Your task to perform on an android device: Open Yahoo.com Image 0: 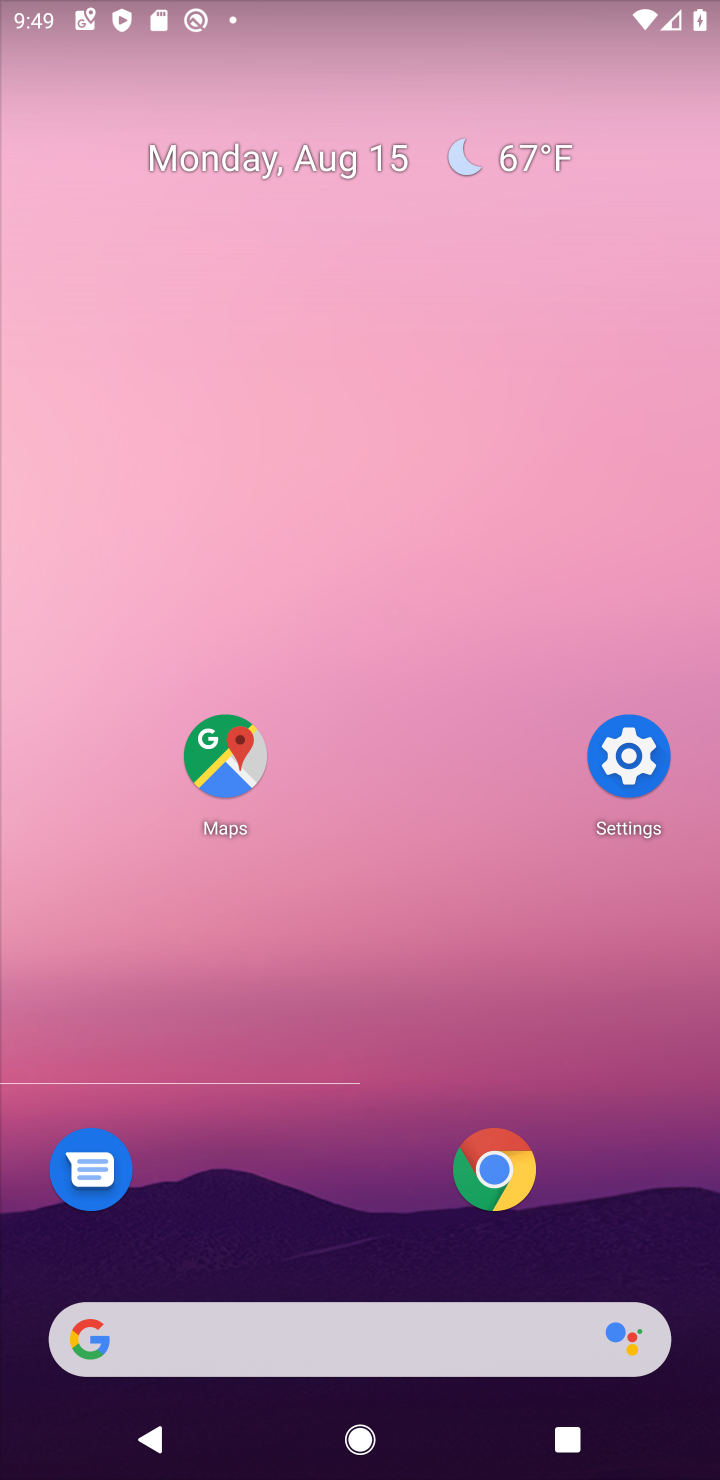
Step 0: click (484, 1173)
Your task to perform on an android device: Open Yahoo.com Image 1: 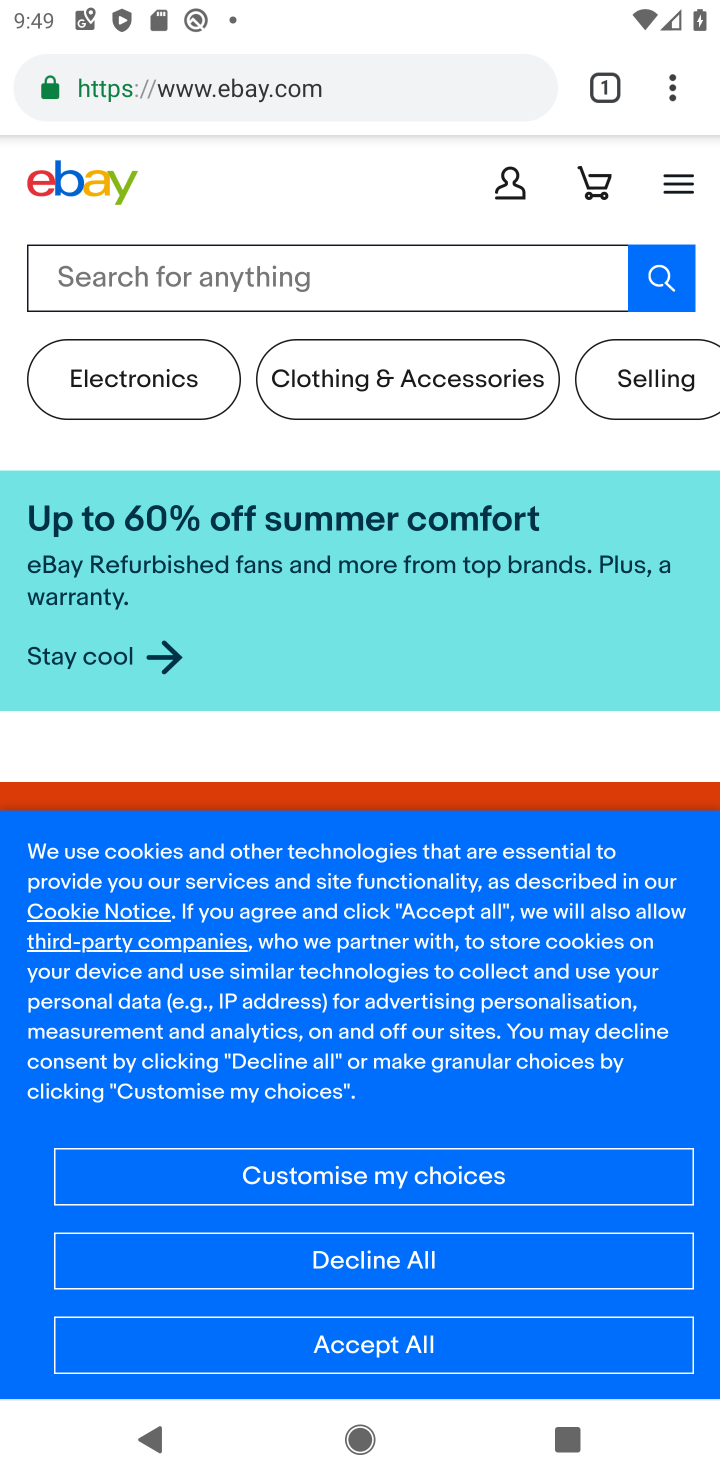
Step 1: drag from (675, 96) to (536, 177)
Your task to perform on an android device: Open Yahoo.com Image 2: 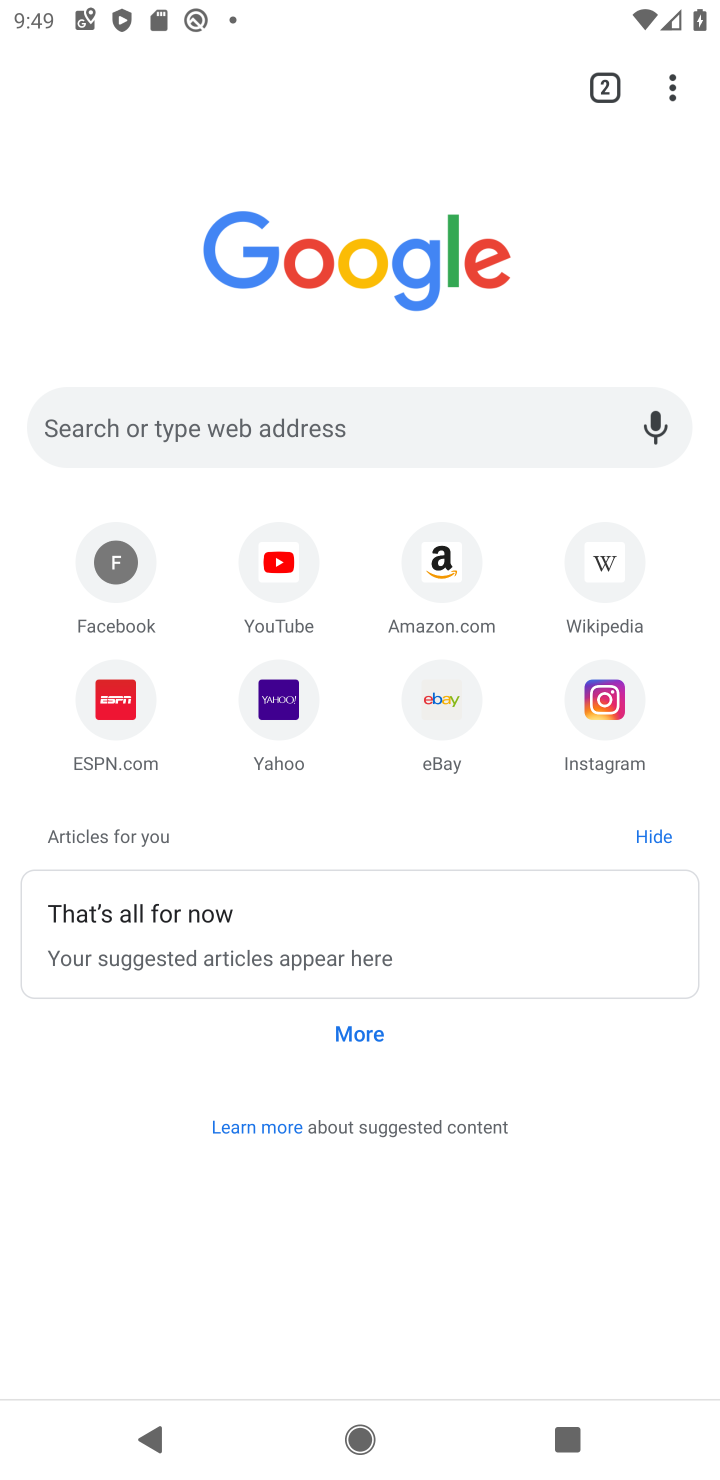
Step 2: click (274, 697)
Your task to perform on an android device: Open Yahoo.com Image 3: 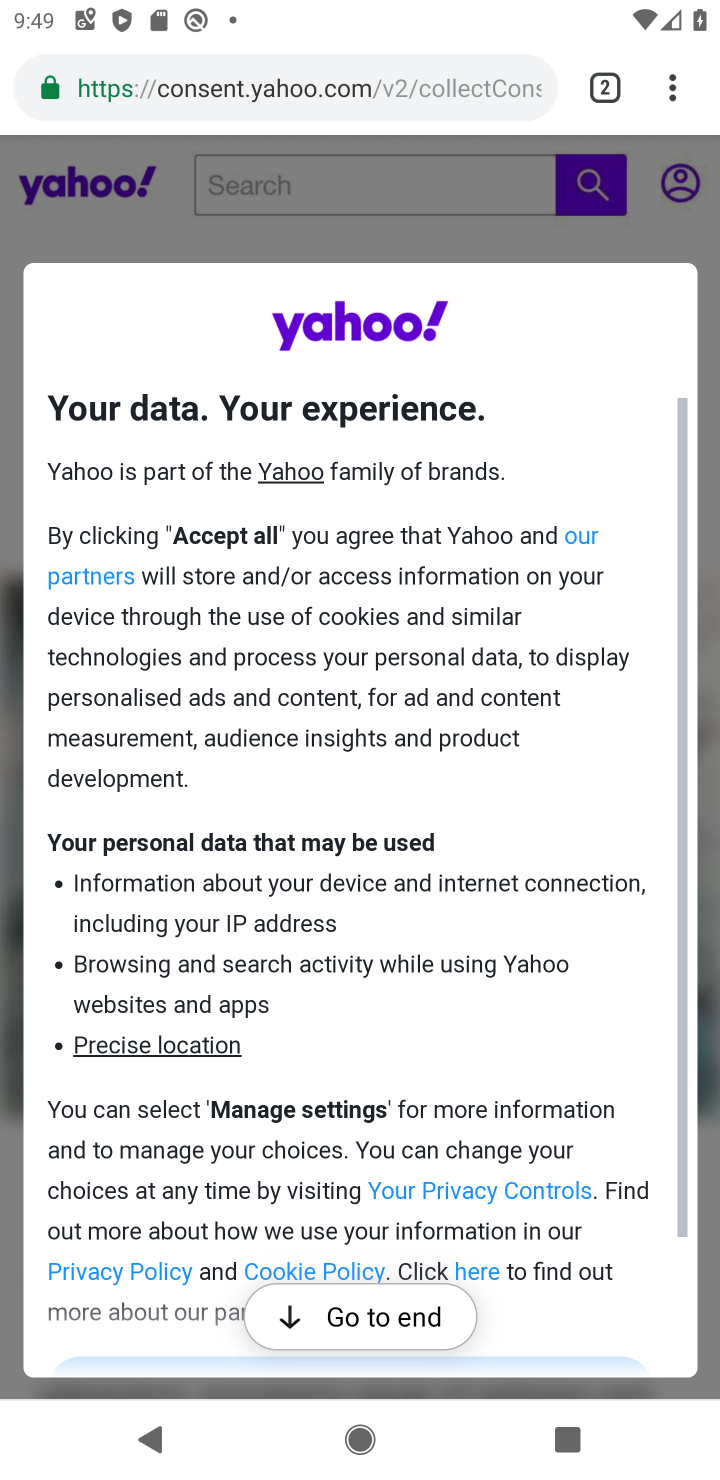
Step 3: click (367, 1313)
Your task to perform on an android device: Open Yahoo.com Image 4: 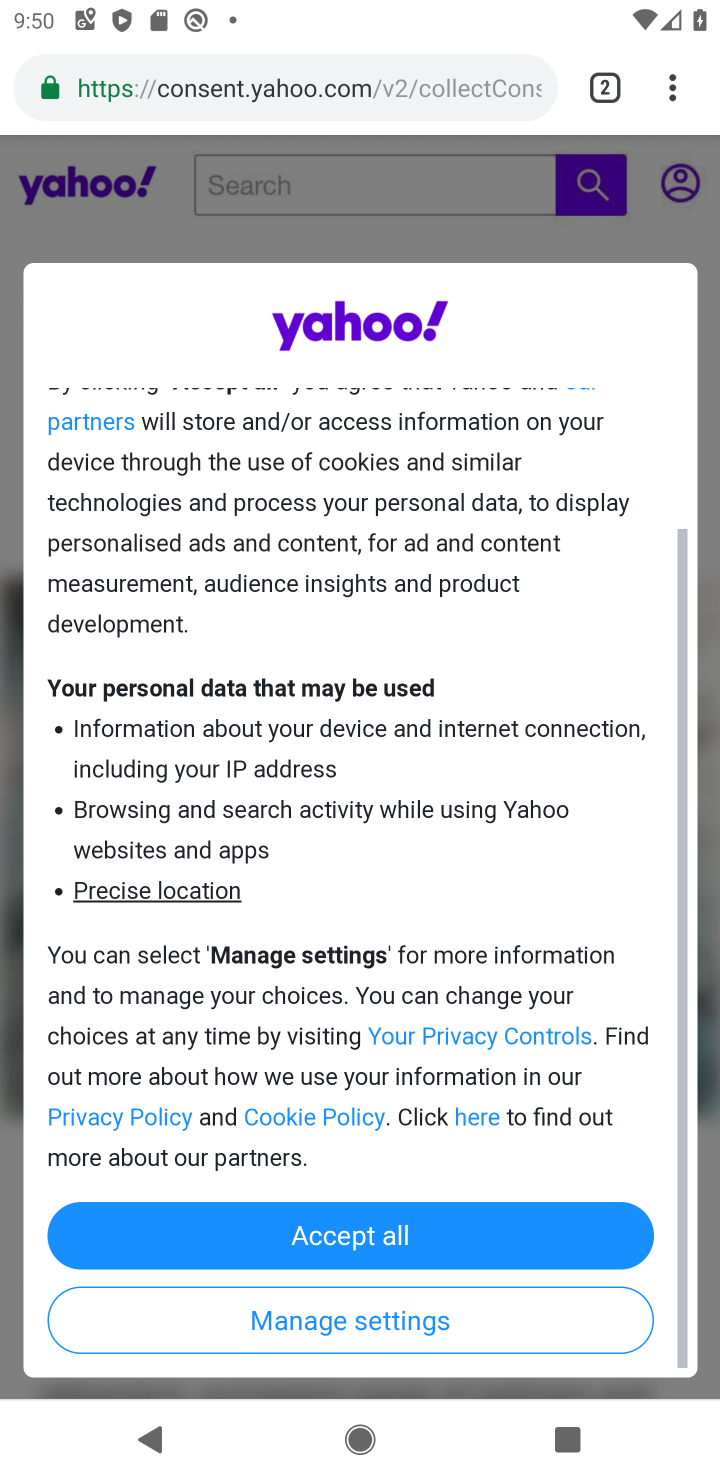
Step 4: click (366, 1241)
Your task to perform on an android device: Open Yahoo.com Image 5: 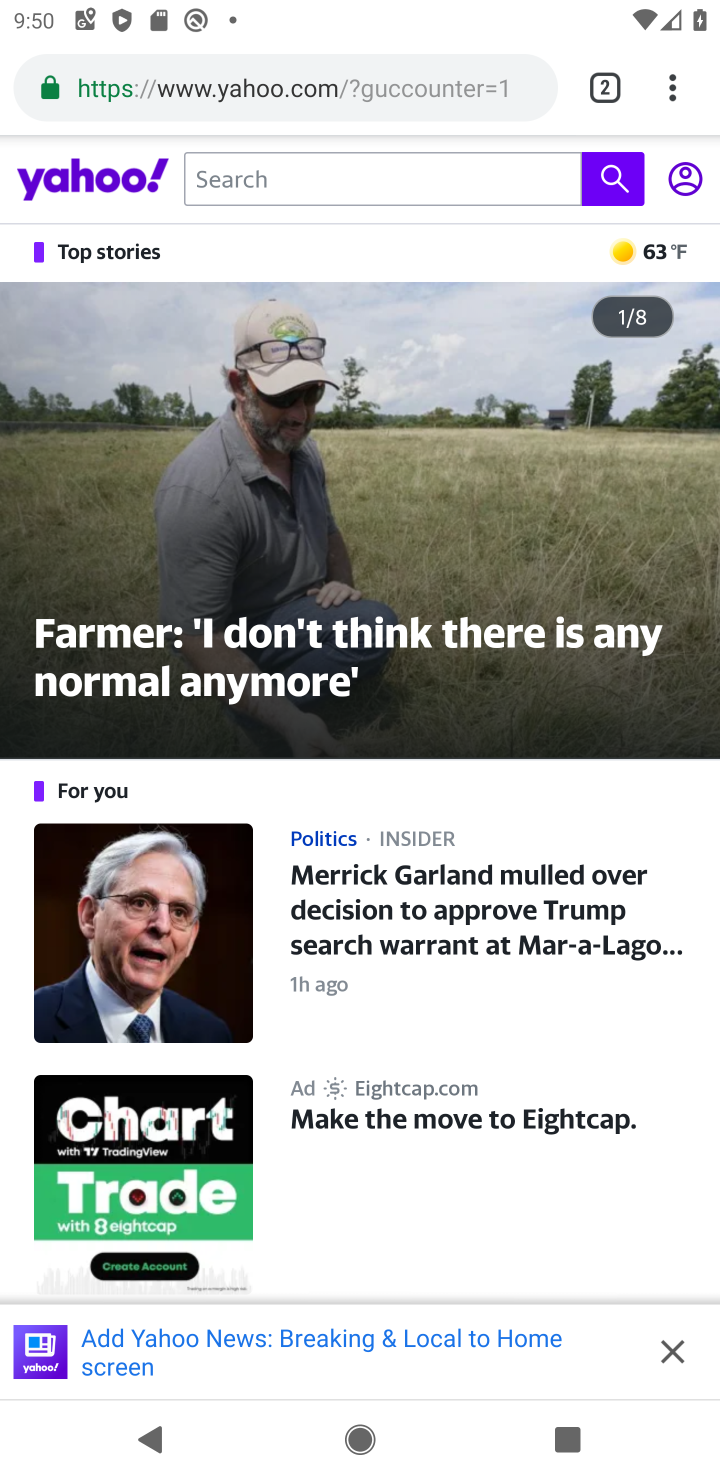
Step 5: task complete